Your task to perform on an android device: see tabs open on other devices in the chrome app Image 0: 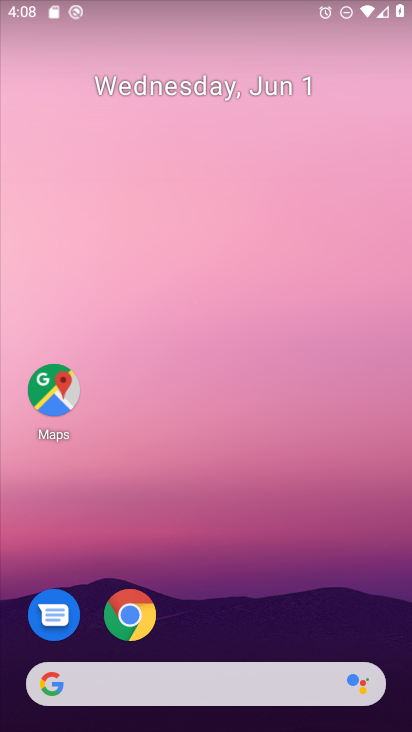
Step 0: press home button
Your task to perform on an android device: see tabs open on other devices in the chrome app Image 1: 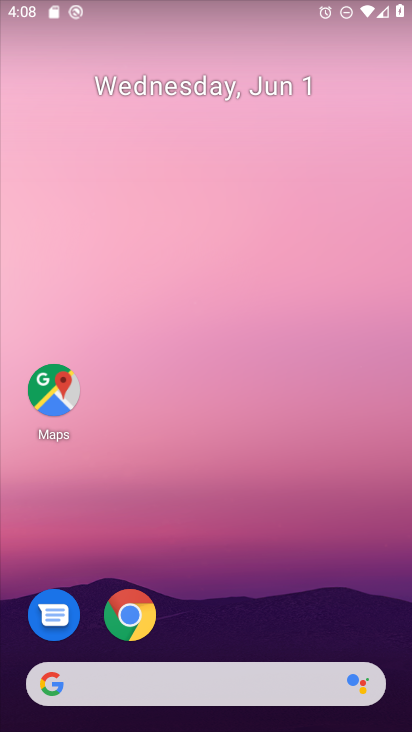
Step 1: click (129, 609)
Your task to perform on an android device: see tabs open on other devices in the chrome app Image 2: 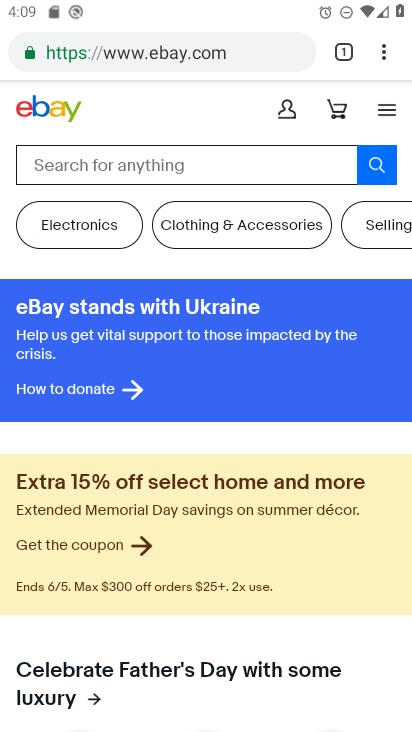
Step 2: click (380, 42)
Your task to perform on an android device: see tabs open on other devices in the chrome app Image 3: 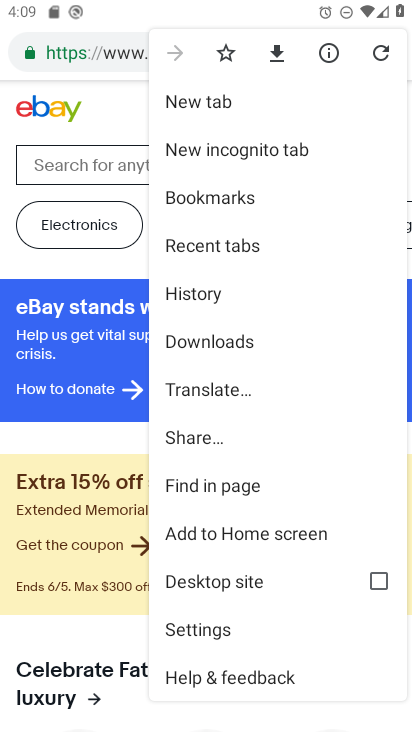
Step 3: click (264, 237)
Your task to perform on an android device: see tabs open on other devices in the chrome app Image 4: 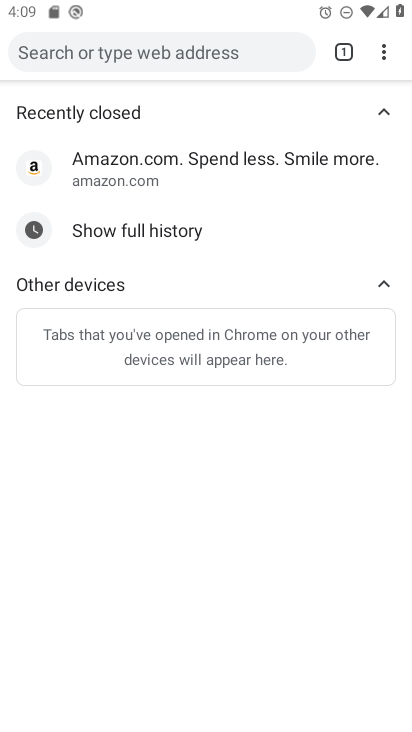
Step 4: task complete